Your task to perform on an android device: uninstall "Walmart Shopping & Grocery" Image 0: 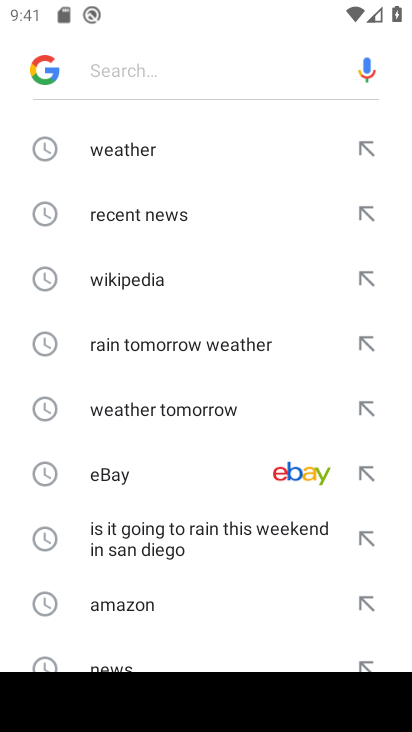
Step 0: press home button
Your task to perform on an android device: uninstall "Walmart Shopping & Grocery" Image 1: 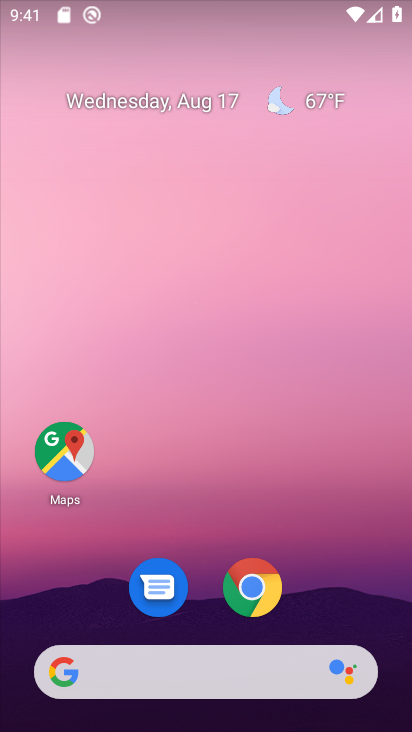
Step 1: drag from (204, 614) to (189, 149)
Your task to perform on an android device: uninstall "Walmart Shopping & Grocery" Image 2: 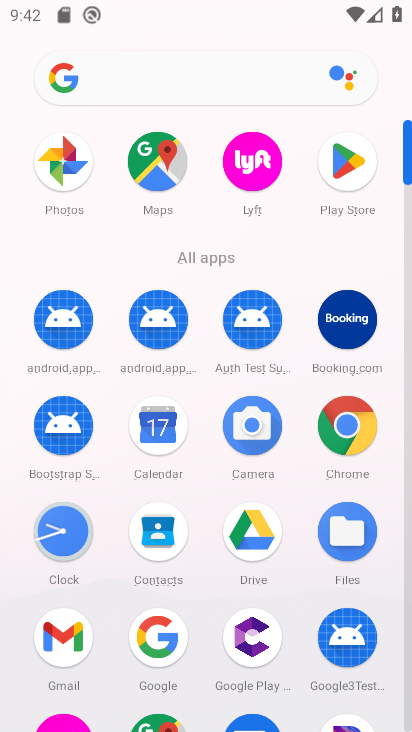
Step 2: click (339, 176)
Your task to perform on an android device: uninstall "Walmart Shopping & Grocery" Image 3: 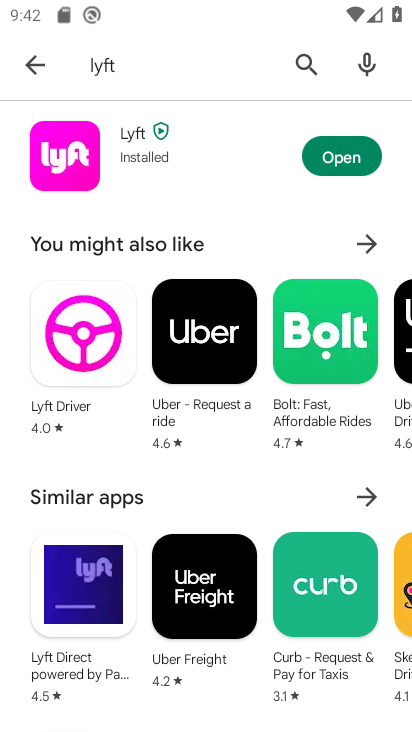
Step 3: click (37, 68)
Your task to perform on an android device: uninstall "Walmart Shopping & Grocery" Image 4: 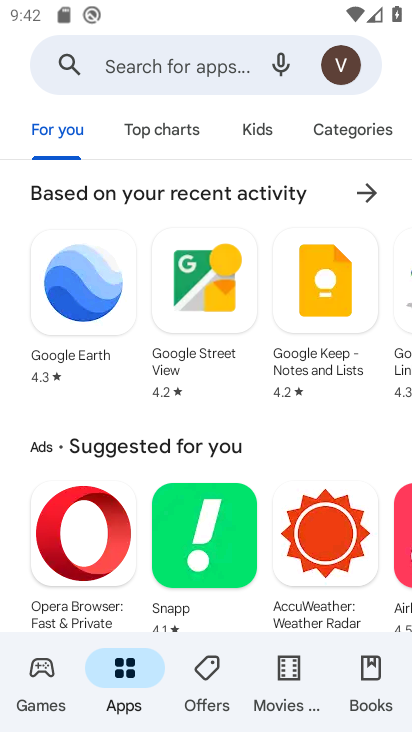
Step 4: click (148, 58)
Your task to perform on an android device: uninstall "Walmart Shopping & Grocery" Image 5: 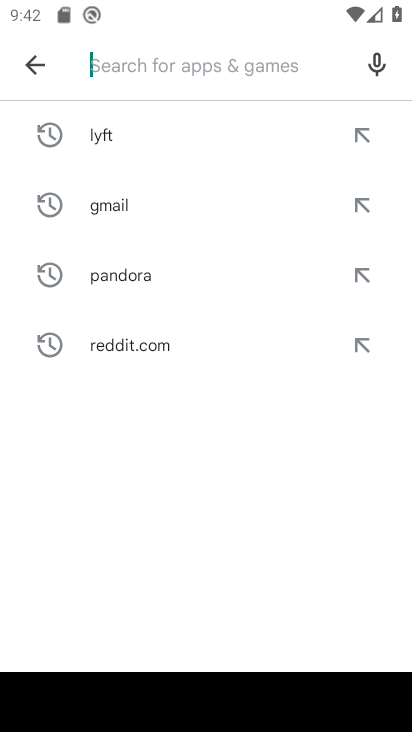
Step 5: type "Walmart Shopping & Grocery"
Your task to perform on an android device: uninstall "Walmart Shopping & Grocery" Image 6: 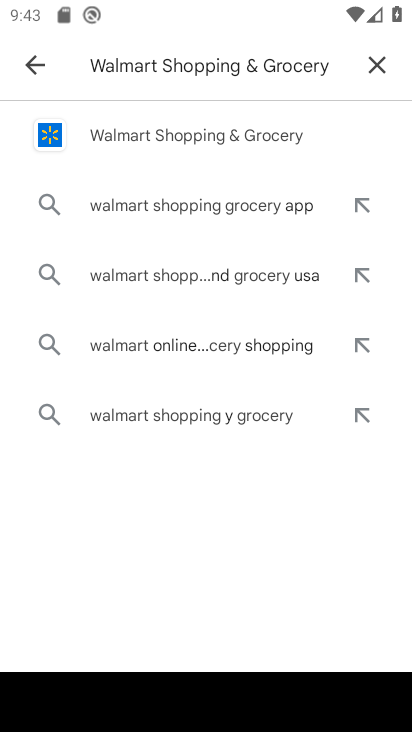
Step 6: click (180, 140)
Your task to perform on an android device: uninstall "Walmart Shopping & Grocery" Image 7: 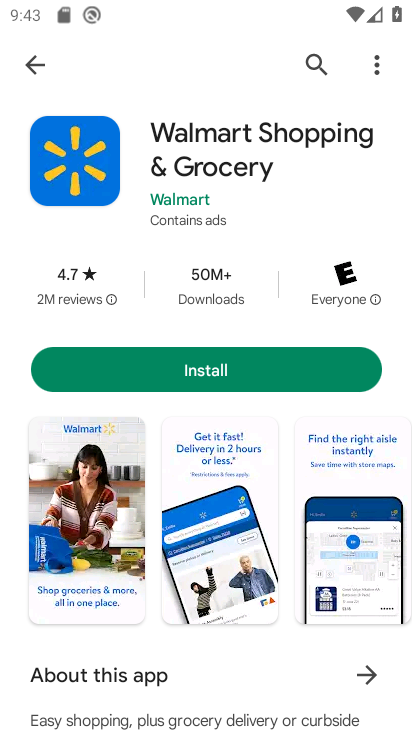
Step 7: task complete